Your task to perform on an android device: Clear all items from cart on amazon.com. Image 0: 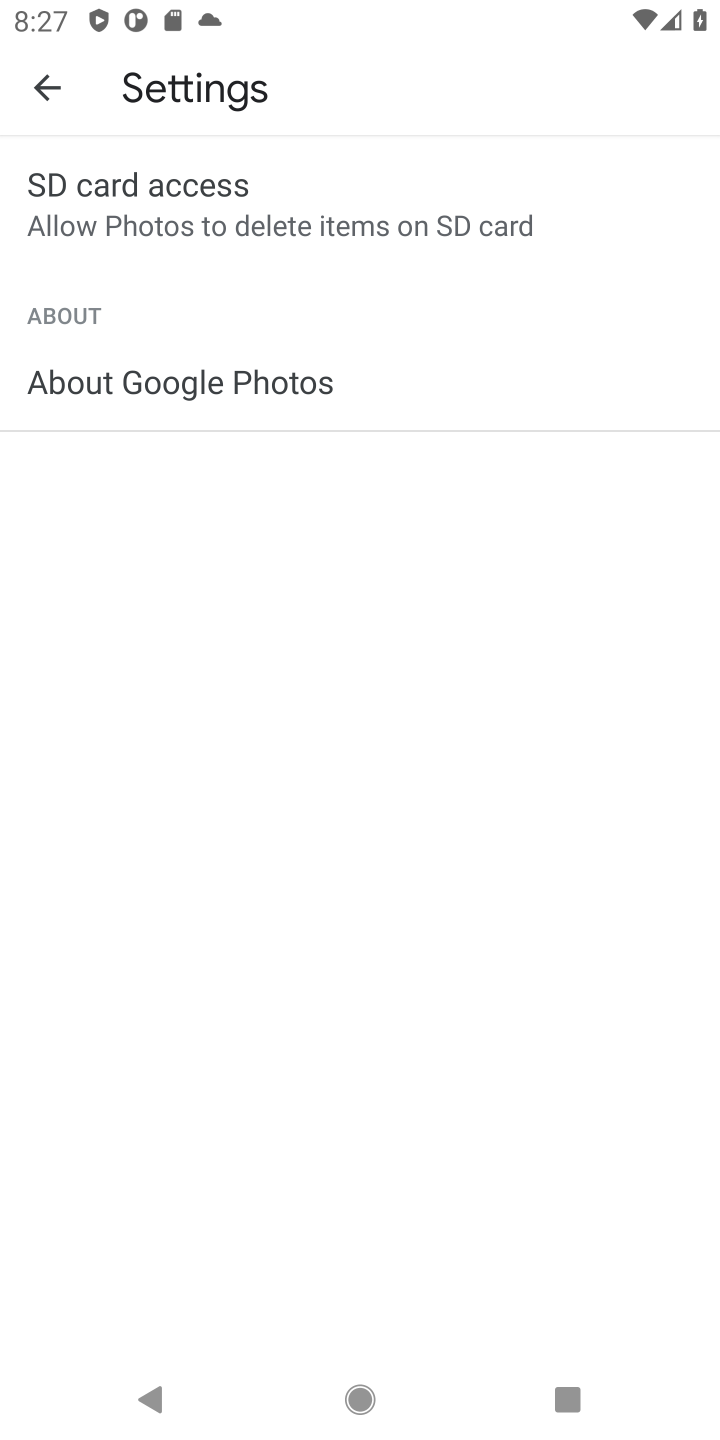
Step 0: press home button
Your task to perform on an android device: Clear all items from cart on amazon.com. Image 1: 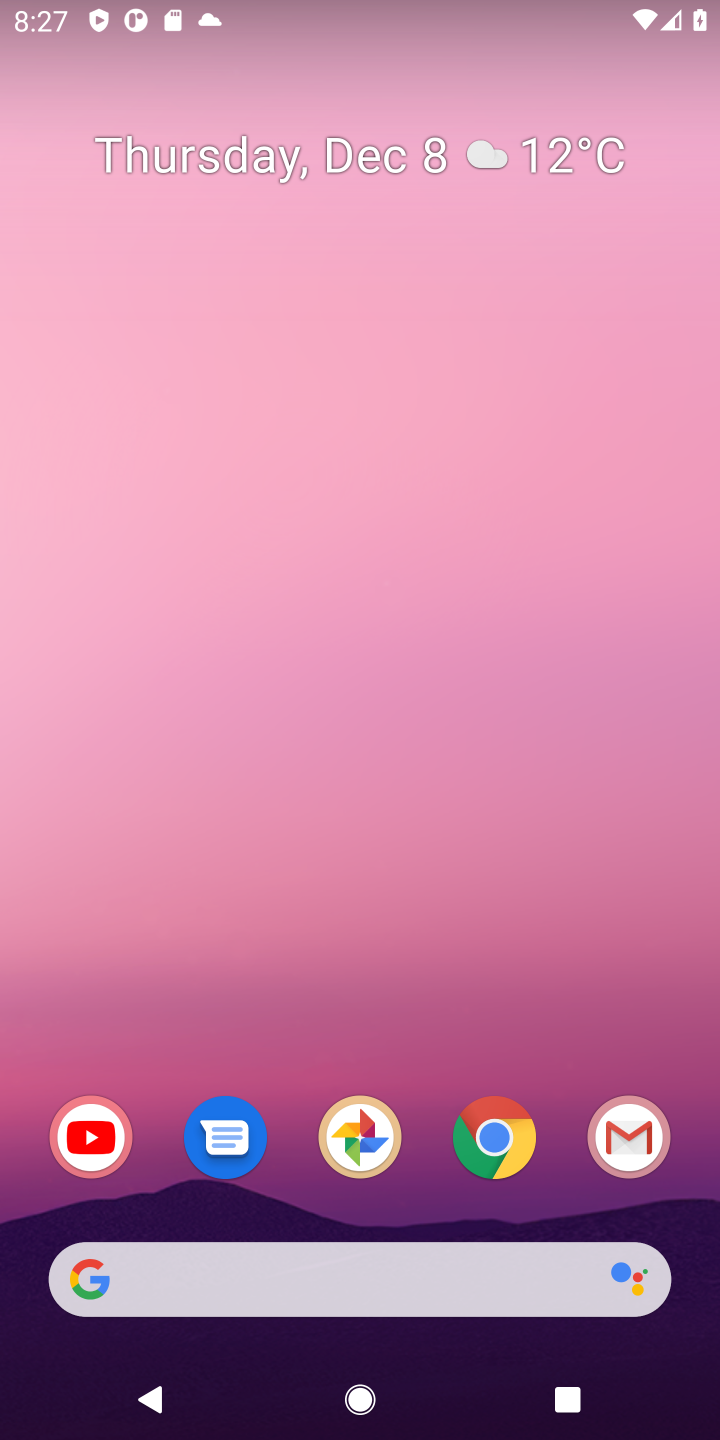
Step 1: click (492, 1134)
Your task to perform on an android device: Clear all items from cart on amazon.com. Image 2: 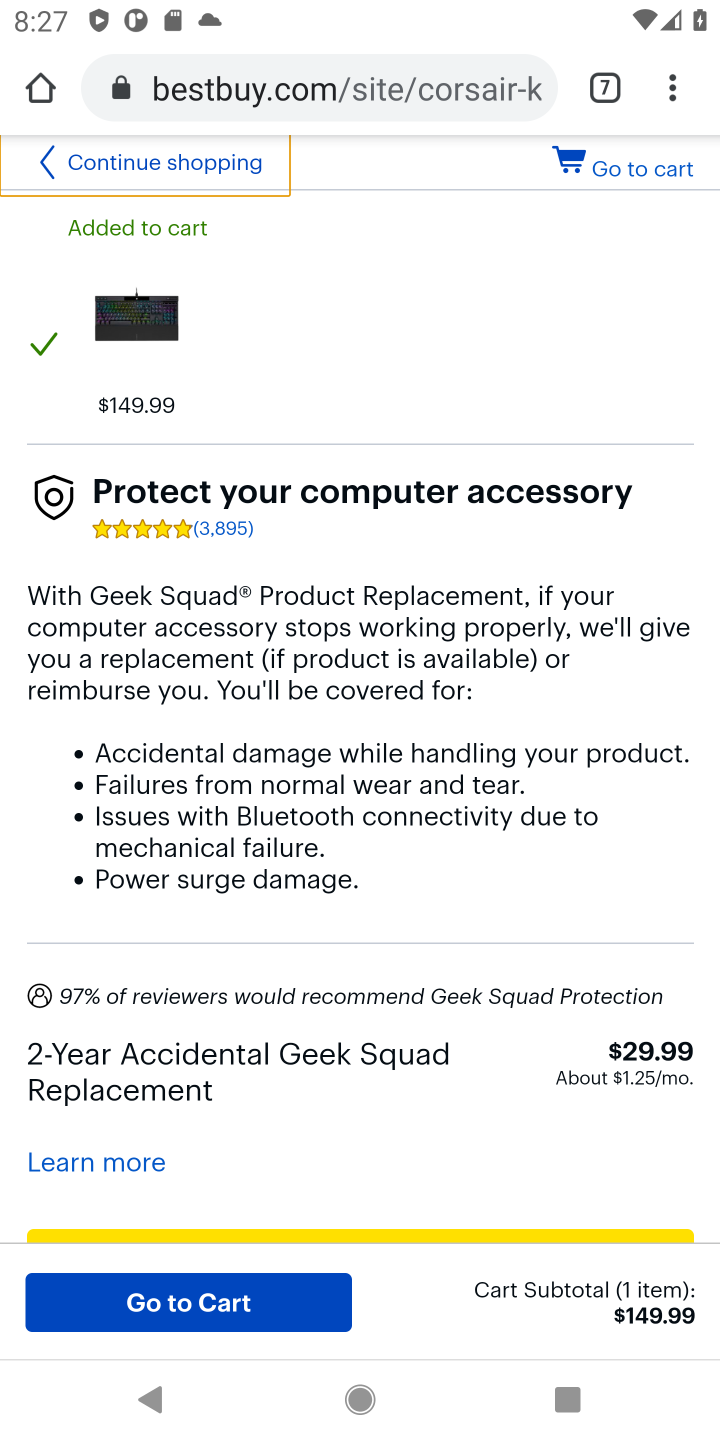
Step 2: click (598, 69)
Your task to perform on an android device: Clear all items from cart on amazon.com. Image 3: 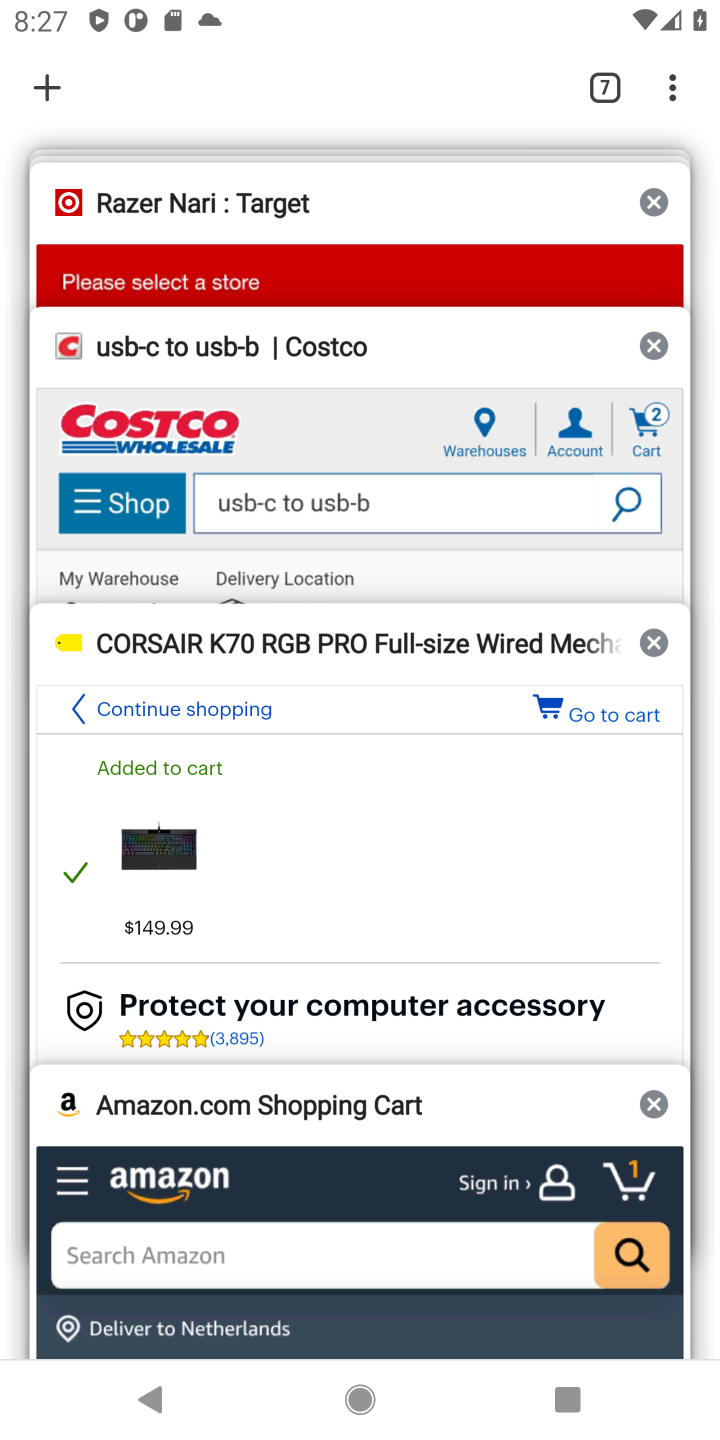
Step 3: click (293, 1220)
Your task to perform on an android device: Clear all items from cart on amazon.com. Image 4: 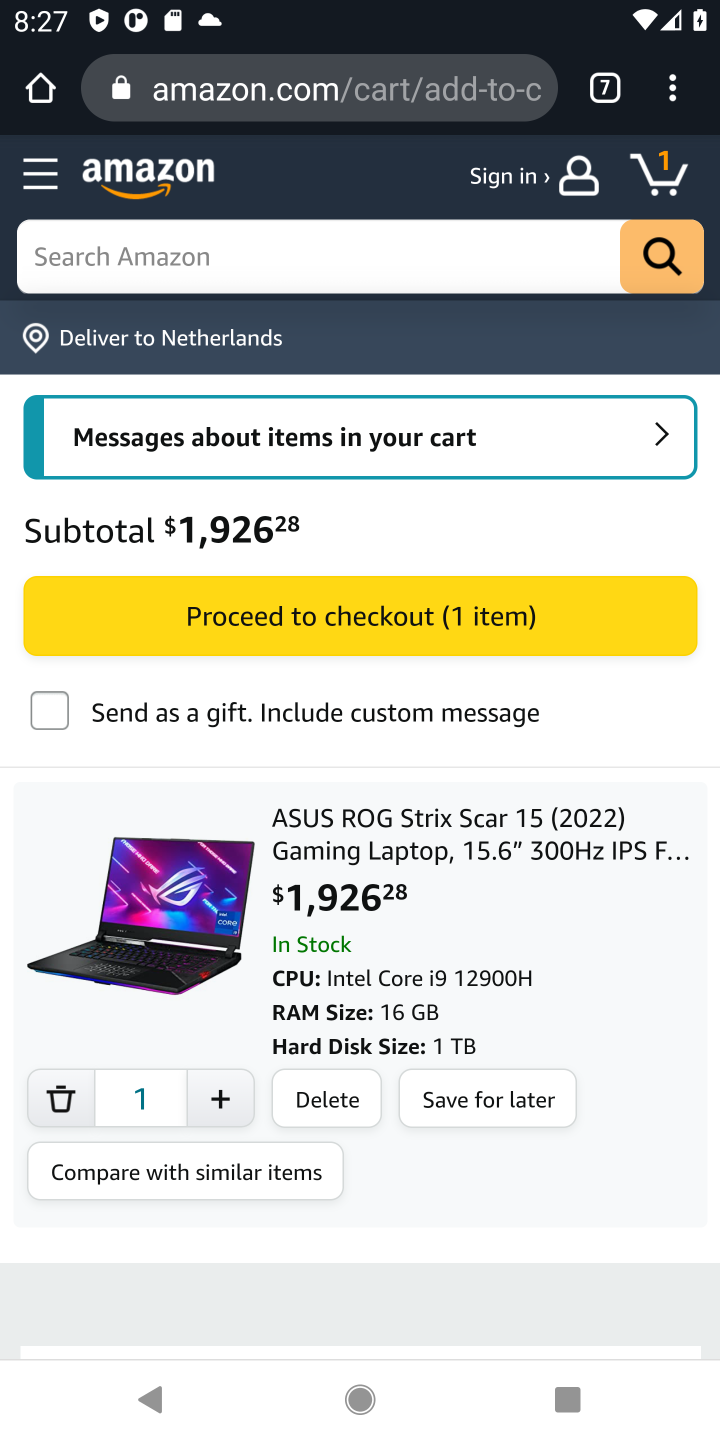
Step 4: click (321, 1093)
Your task to perform on an android device: Clear all items from cart on amazon.com. Image 5: 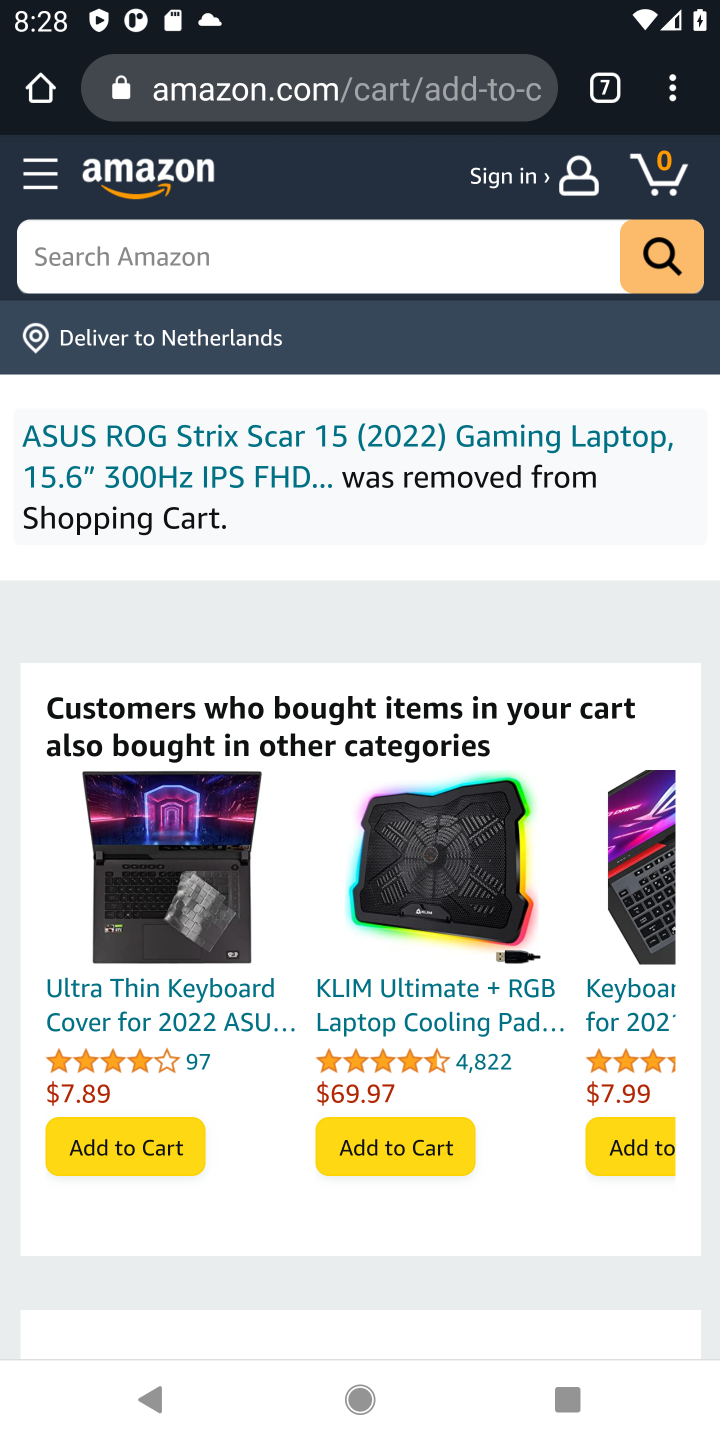
Step 5: task complete